Your task to perform on an android device: Google the capital of Bolivia Image 0: 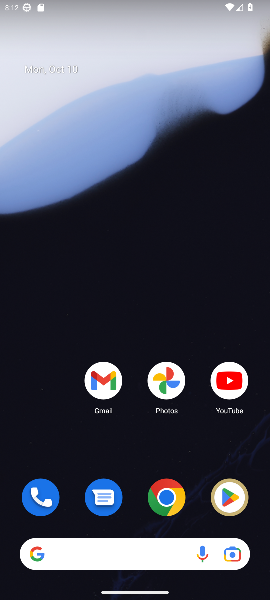
Step 0: drag from (130, 508) to (144, 238)
Your task to perform on an android device: Google the capital of Bolivia Image 1: 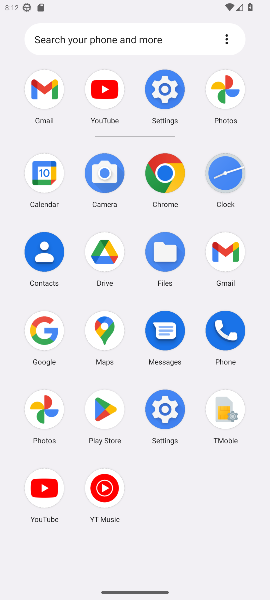
Step 1: click (43, 328)
Your task to perform on an android device: Google the capital of Bolivia Image 2: 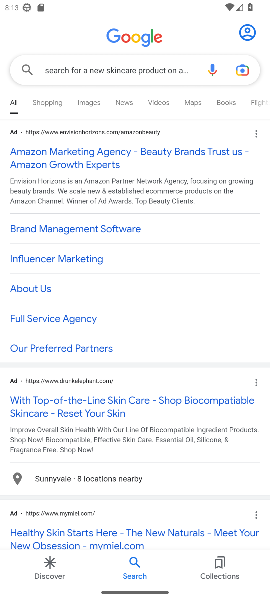
Step 2: click (111, 65)
Your task to perform on an android device: Google the capital of Bolivia Image 3: 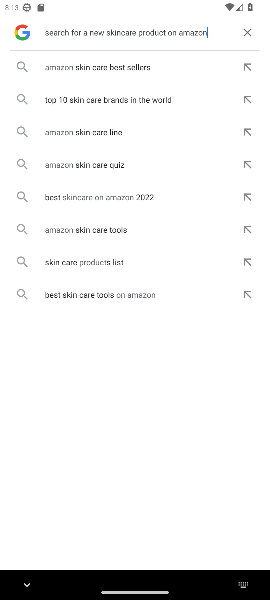
Step 3: click (248, 26)
Your task to perform on an android device: Google the capital of Bolivia Image 4: 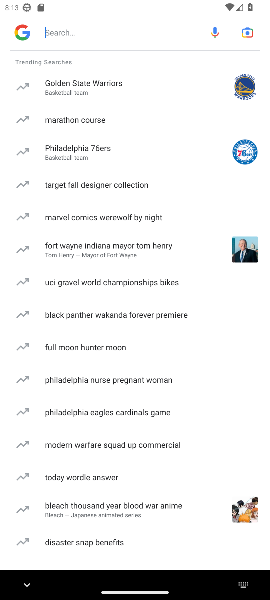
Step 4: click (85, 26)
Your task to perform on an android device: Google the capital of Bolivia Image 5: 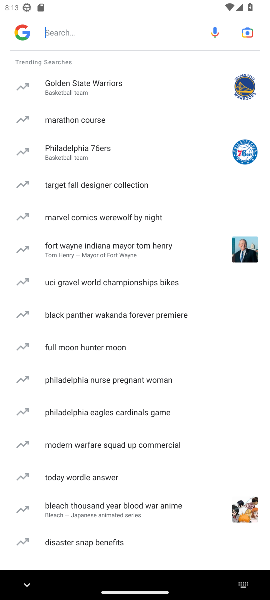
Step 5: type "Google the capital of Bolivia "
Your task to perform on an android device: Google the capital of Bolivia Image 6: 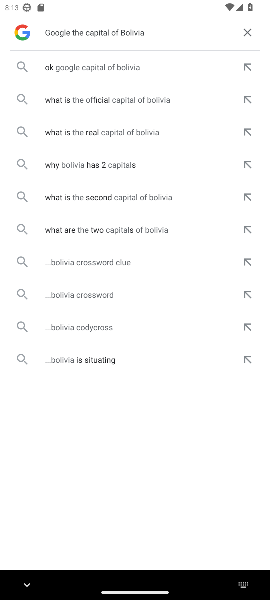
Step 6: click (103, 59)
Your task to perform on an android device: Google the capital of Bolivia Image 7: 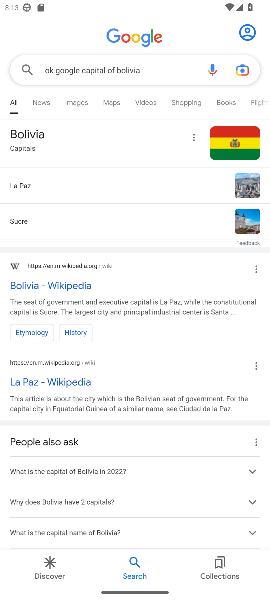
Step 7: task complete